Your task to perform on an android device: See recent photos Image 0: 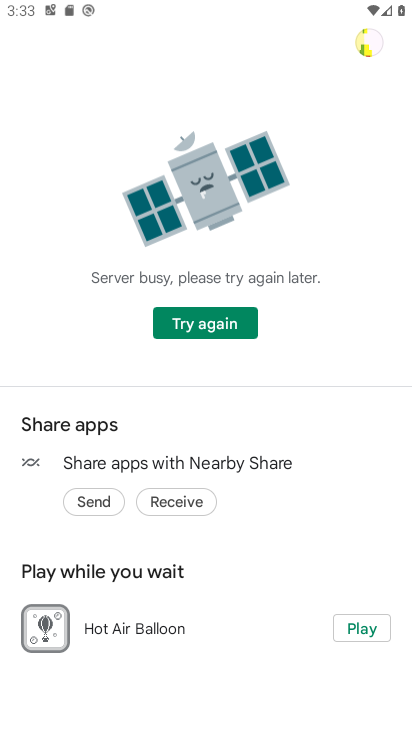
Step 0: press home button
Your task to perform on an android device: See recent photos Image 1: 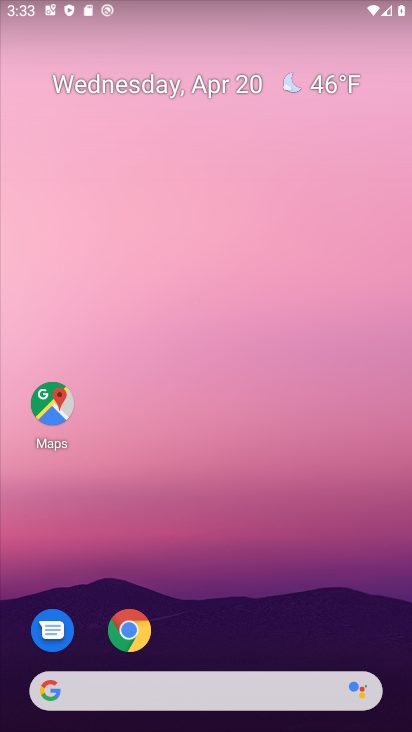
Step 1: drag from (191, 670) to (236, 335)
Your task to perform on an android device: See recent photos Image 2: 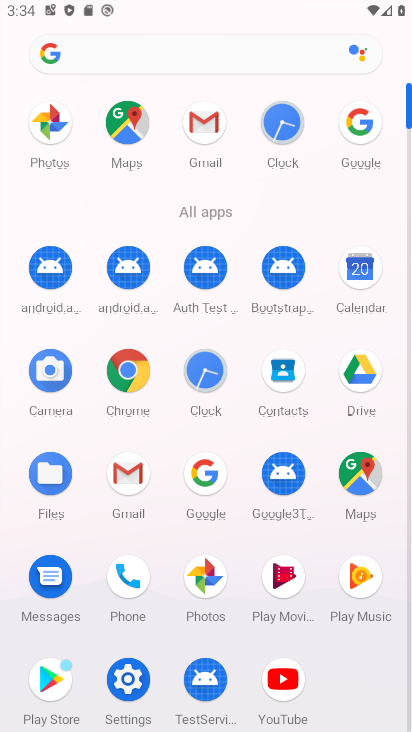
Step 2: click (197, 585)
Your task to perform on an android device: See recent photos Image 3: 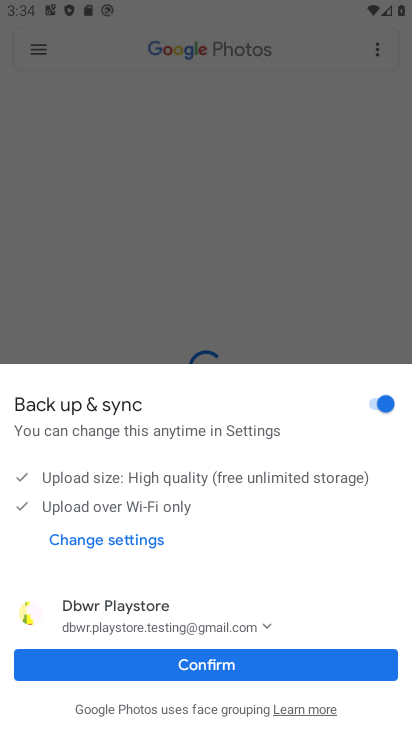
Step 3: click (162, 677)
Your task to perform on an android device: See recent photos Image 4: 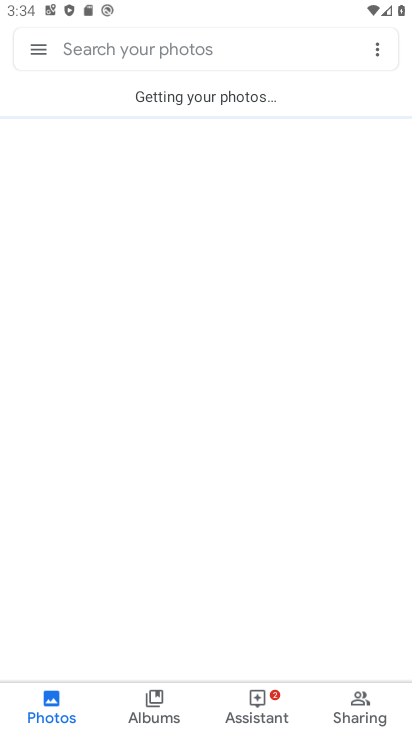
Step 4: click (37, 50)
Your task to perform on an android device: See recent photos Image 5: 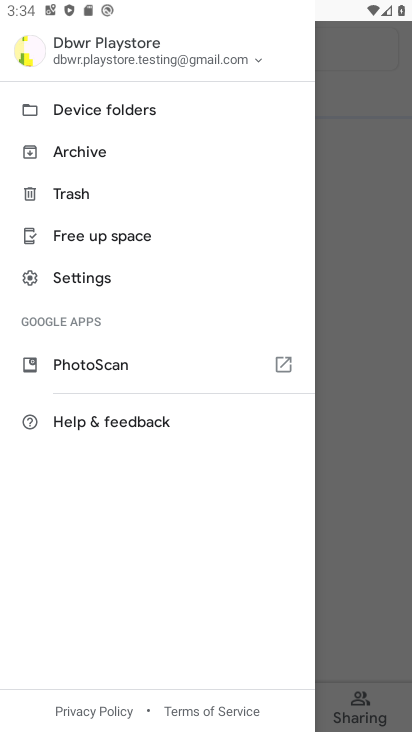
Step 5: click (343, 195)
Your task to perform on an android device: See recent photos Image 6: 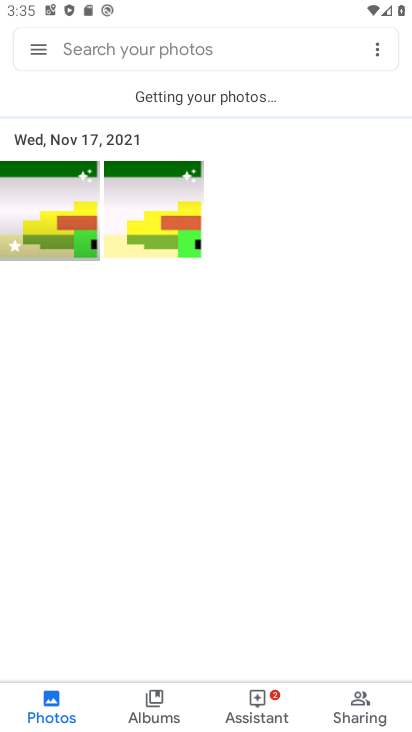
Step 6: click (44, 221)
Your task to perform on an android device: See recent photos Image 7: 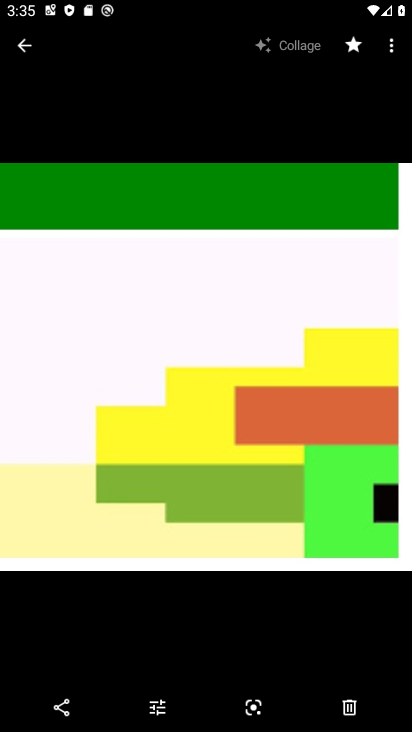
Step 7: task complete